Your task to perform on an android device: Show me popular games on the Play Store Image 0: 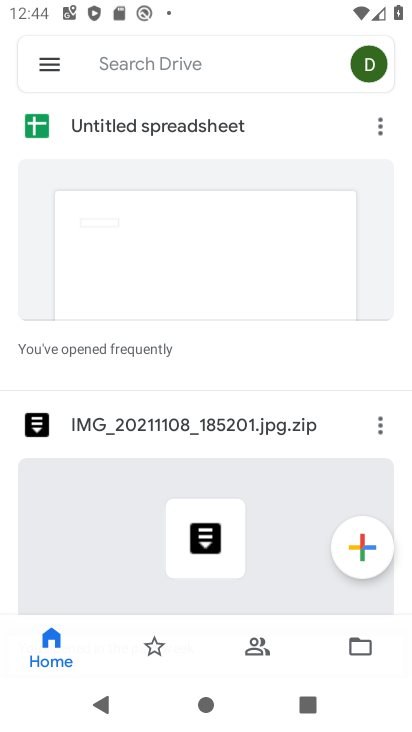
Step 0: press home button
Your task to perform on an android device: Show me popular games on the Play Store Image 1: 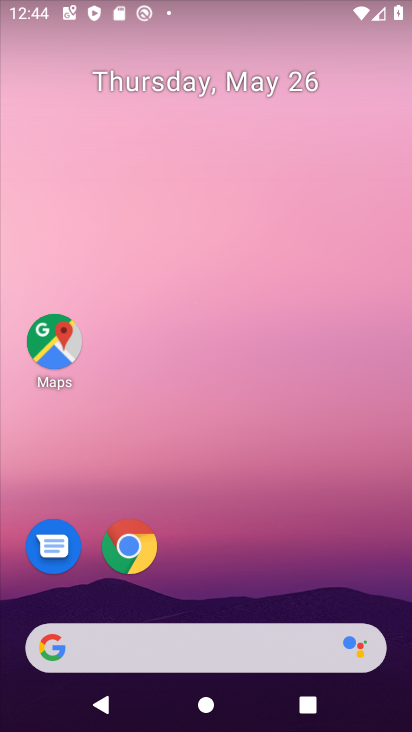
Step 1: drag from (335, 563) to (299, 94)
Your task to perform on an android device: Show me popular games on the Play Store Image 2: 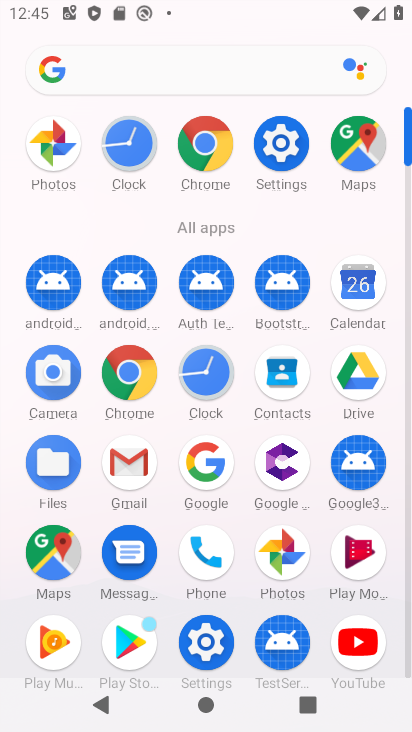
Step 2: click (117, 644)
Your task to perform on an android device: Show me popular games on the Play Store Image 3: 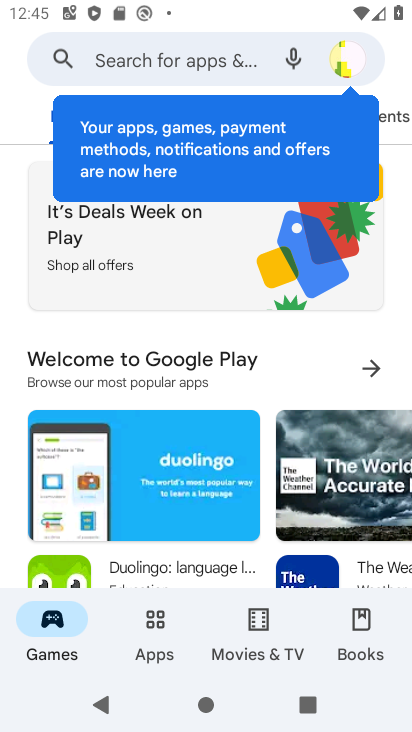
Step 3: click (174, 52)
Your task to perform on an android device: Show me popular games on the Play Store Image 4: 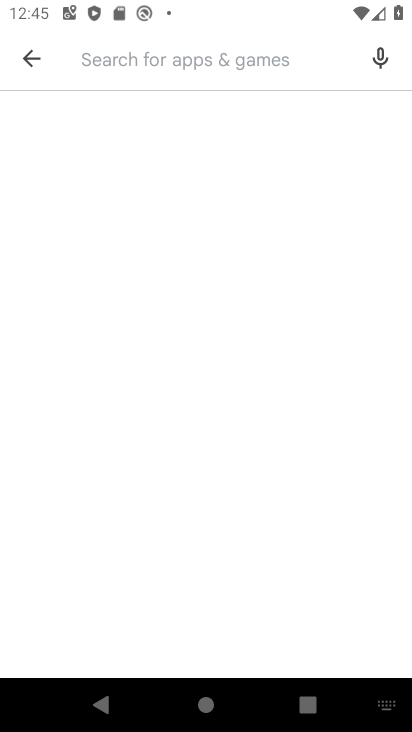
Step 4: click (174, 61)
Your task to perform on an android device: Show me popular games on the Play Store Image 5: 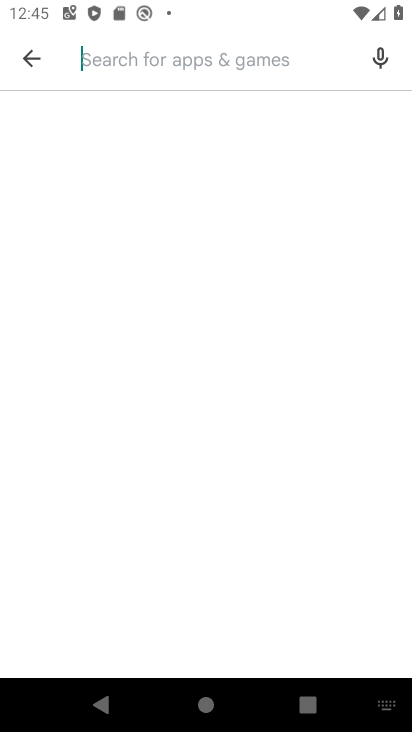
Step 5: type "popular games "
Your task to perform on an android device: Show me popular games on the Play Store Image 6: 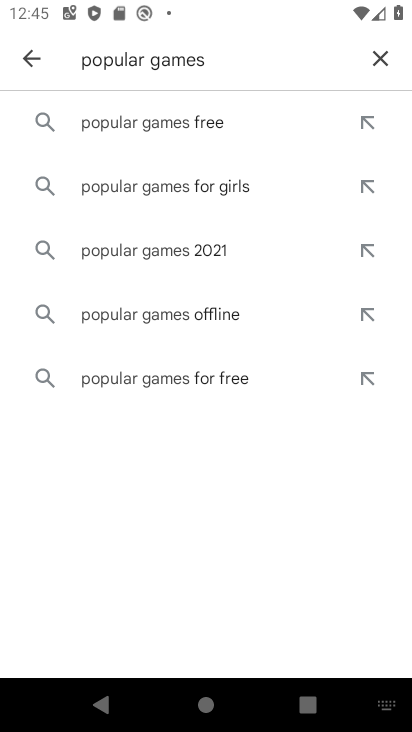
Step 6: click (293, 114)
Your task to perform on an android device: Show me popular games on the Play Store Image 7: 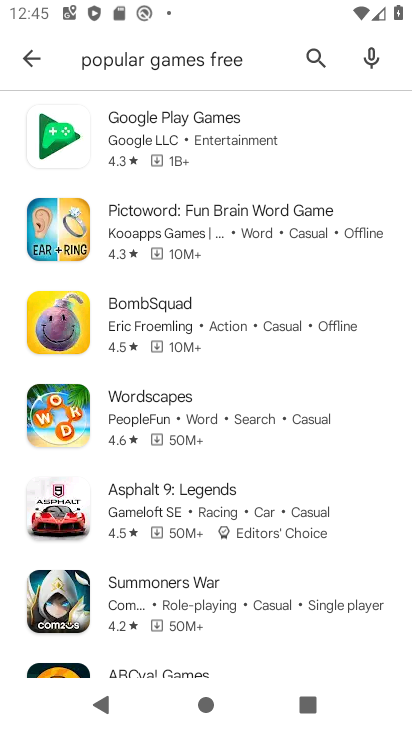
Step 7: task complete